Your task to perform on an android device: visit the assistant section in the google photos Image 0: 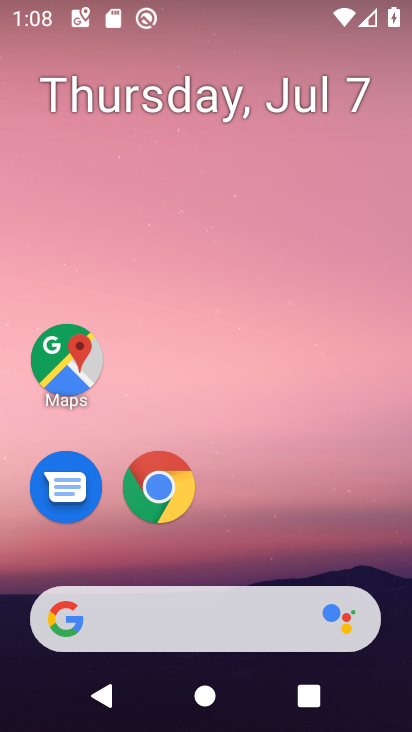
Step 0: drag from (349, 532) to (347, 157)
Your task to perform on an android device: visit the assistant section in the google photos Image 1: 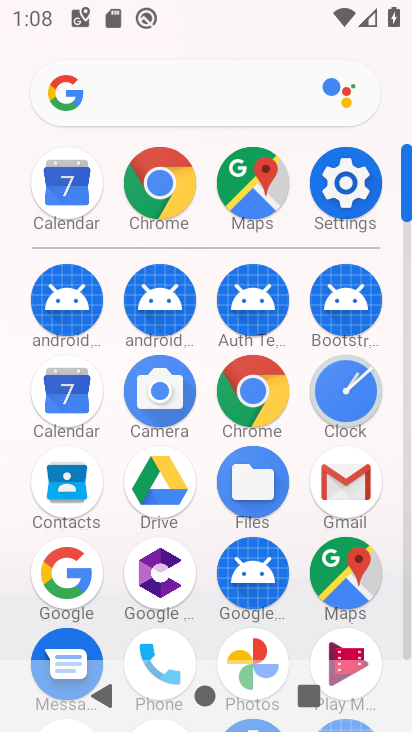
Step 1: drag from (385, 588) to (386, 392)
Your task to perform on an android device: visit the assistant section in the google photos Image 2: 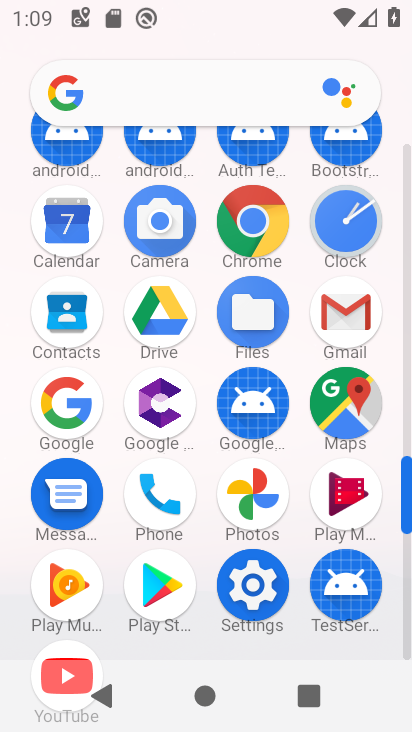
Step 2: click (273, 495)
Your task to perform on an android device: visit the assistant section in the google photos Image 3: 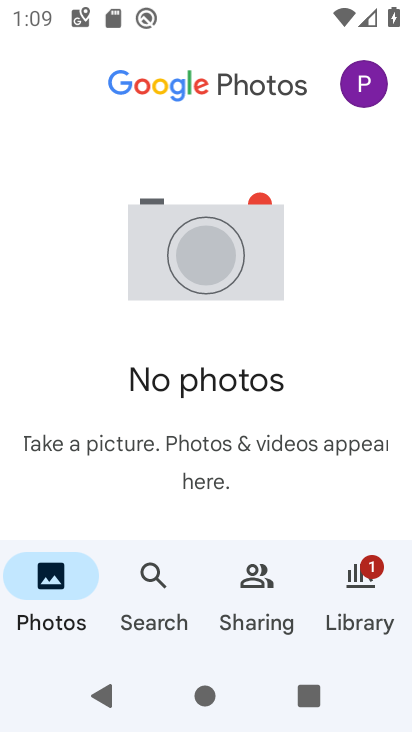
Step 3: click (363, 88)
Your task to perform on an android device: visit the assistant section in the google photos Image 4: 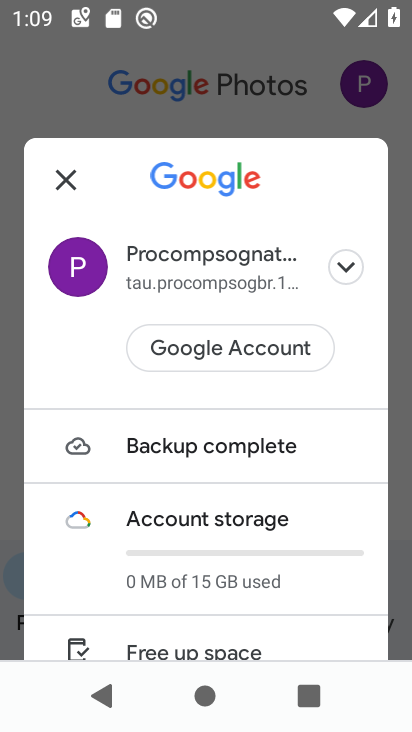
Step 4: task complete